Your task to perform on an android device: Go to Android settings Image 0: 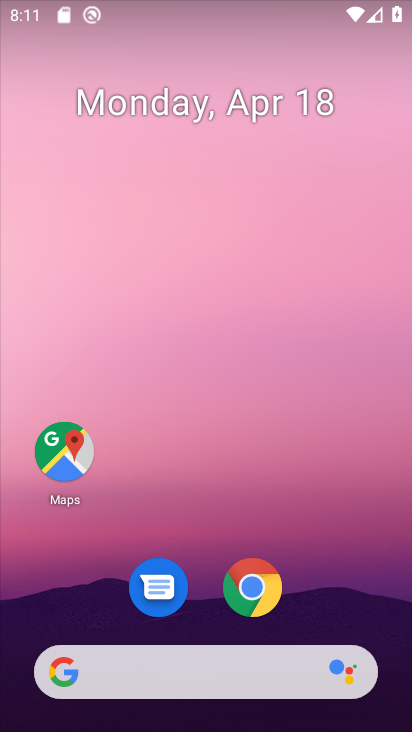
Step 0: drag from (206, 724) to (216, 62)
Your task to perform on an android device: Go to Android settings Image 1: 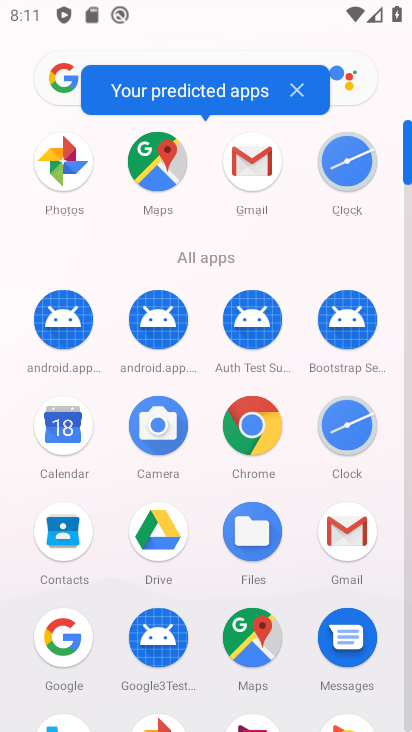
Step 1: drag from (197, 647) to (197, 121)
Your task to perform on an android device: Go to Android settings Image 2: 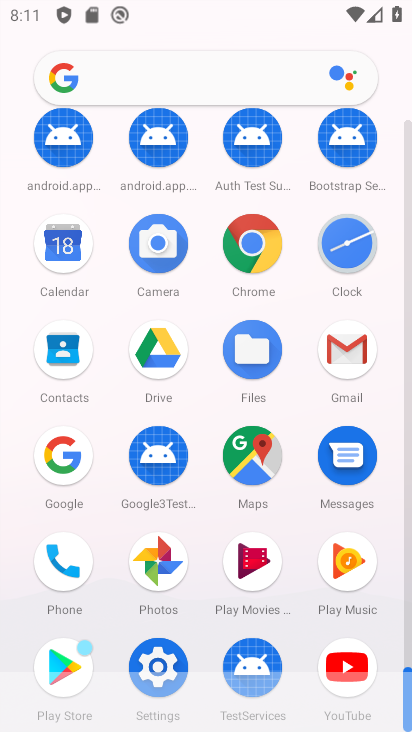
Step 2: click (146, 661)
Your task to perform on an android device: Go to Android settings Image 3: 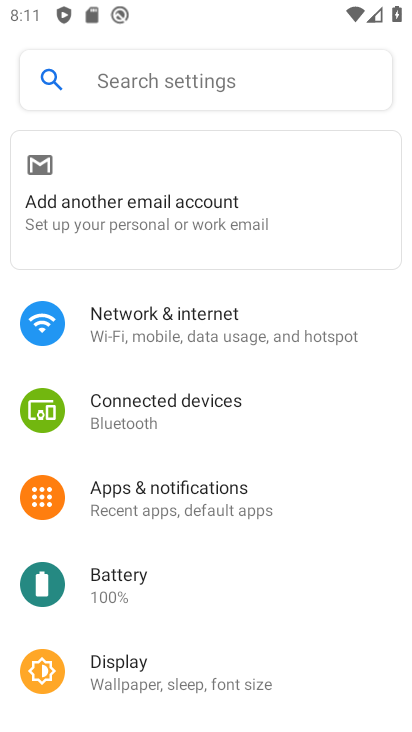
Step 3: drag from (216, 586) to (218, 214)
Your task to perform on an android device: Go to Android settings Image 4: 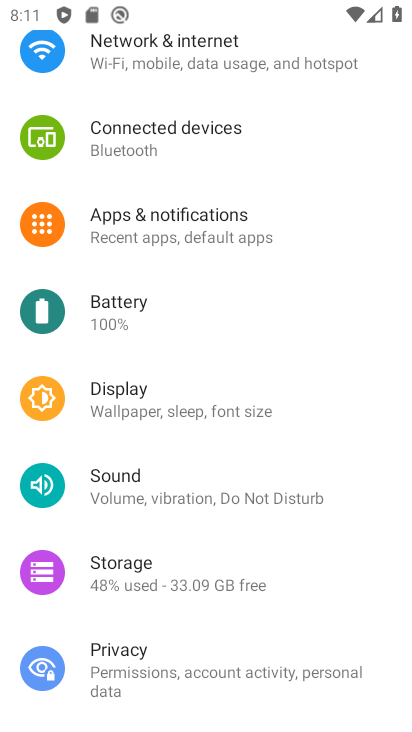
Step 4: drag from (212, 616) to (215, 154)
Your task to perform on an android device: Go to Android settings Image 5: 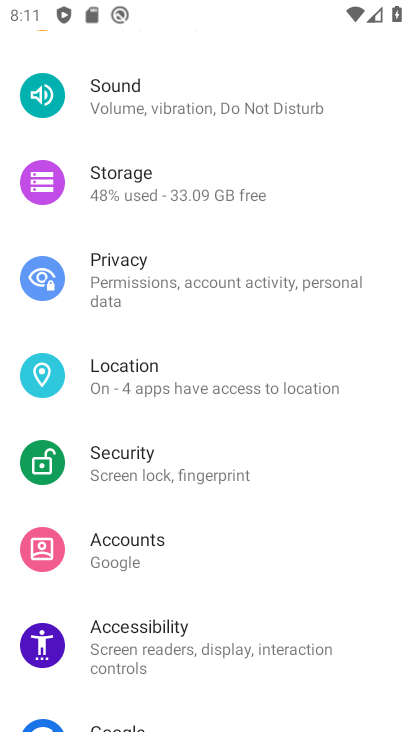
Step 5: drag from (195, 676) to (188, 240)
Your task to perform on an android device: Go to Android settings Image 6: 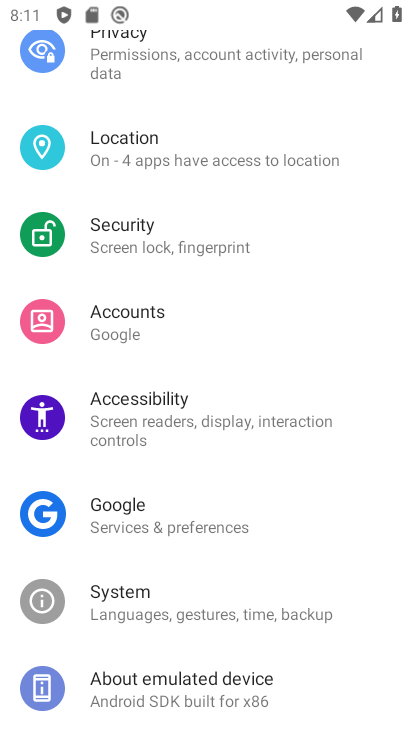
Step 6: click (181, 690)
Your task to perform on an android device: Go to Android settings Image 7: 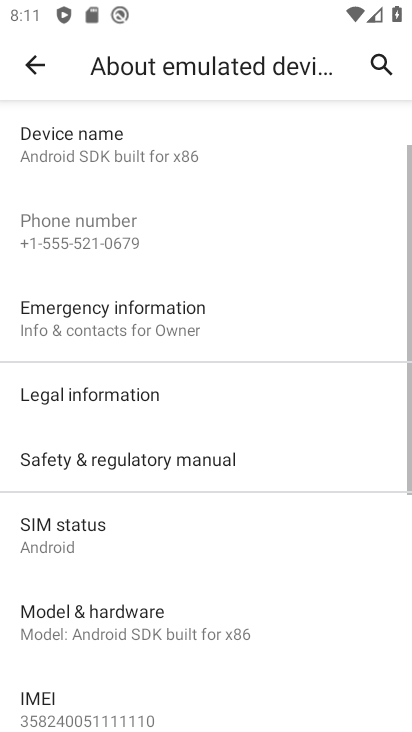
Step 7: task complete